Your task to perform on an android device: make emails show in primary in the gmail app Image 0: 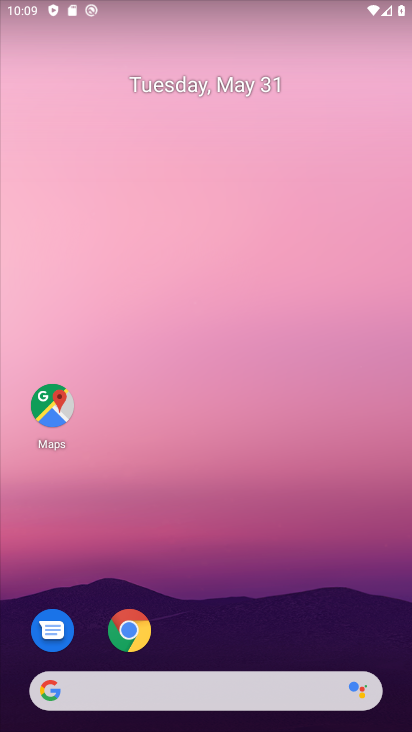
Step 0: drag from (310, 525) to (325, 69)
Your task to perform on an android device: make emails show in primary in the gmail app Image 1: 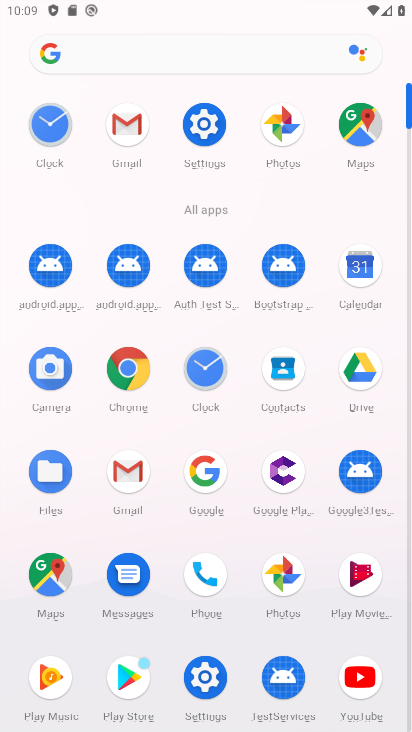
Step 1: click (129, 124)
Your task to perform on an android device: make emails show in primary in the gmail app Image 2: 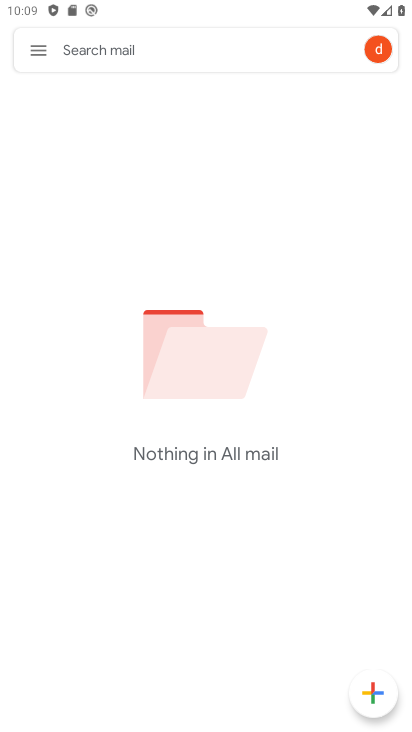
Step 2: click (36, 47)
Your task to perform on an android device: make emails show in primary in the gmail app Image 3: 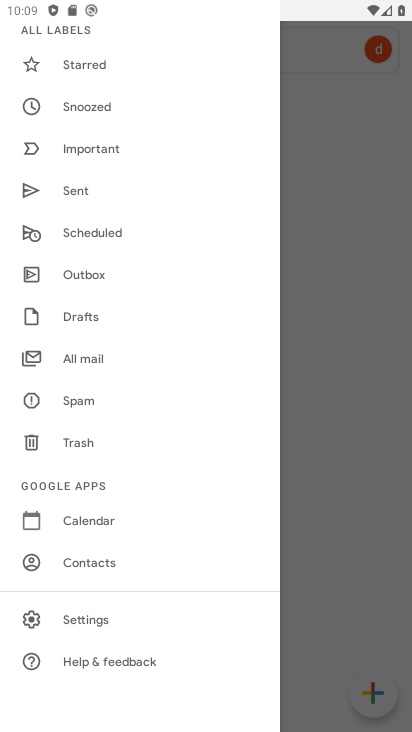
Step 3: click (92, 617)
Your task to perform on an android device: make emails show in primary in the gmail app Image 4: 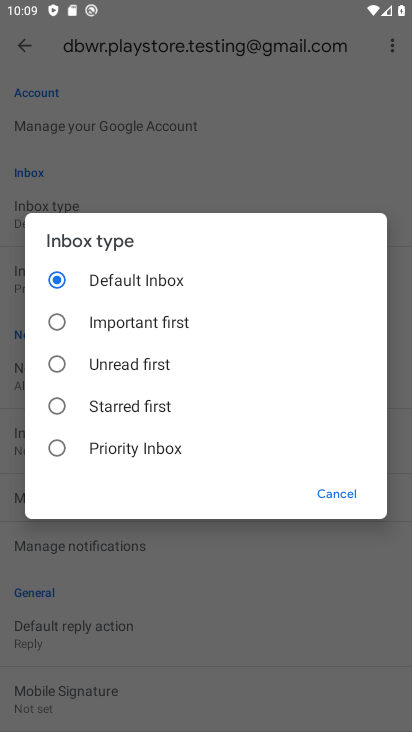
Step 4: click (247, 620)
Your task to perform on an android device: make emails show in primary in the gmail app Image 5: 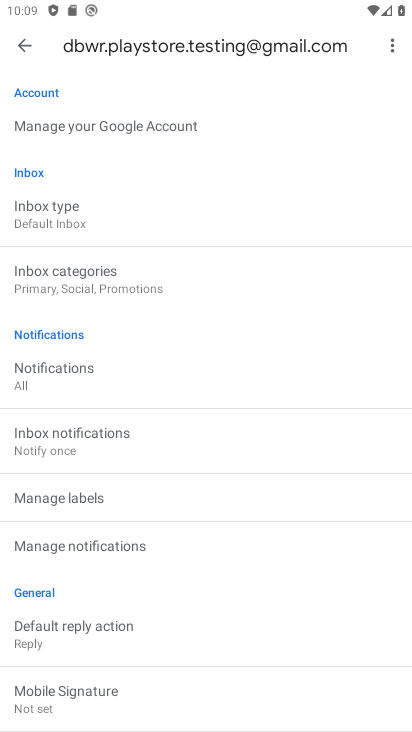
Step 5: task complete